Your task to perform on an android device: change notification settings in the gmail app Image 0: 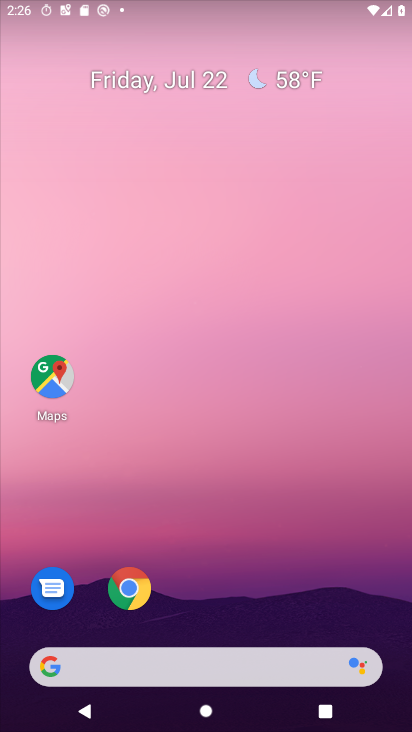
Step 0: press home button
Your task to perform on an android device: change notification settings in the gmail app Image 1: 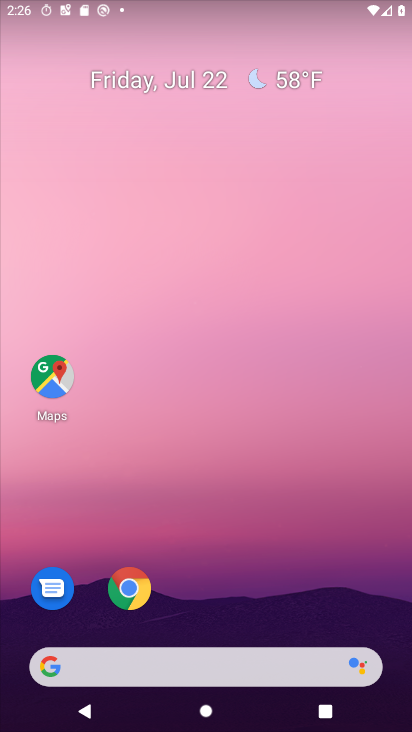
Step 1: drag from (278, 579) to (269, 64)
Your task to perform on an android device: change notification settings in the gmail app Image 2: 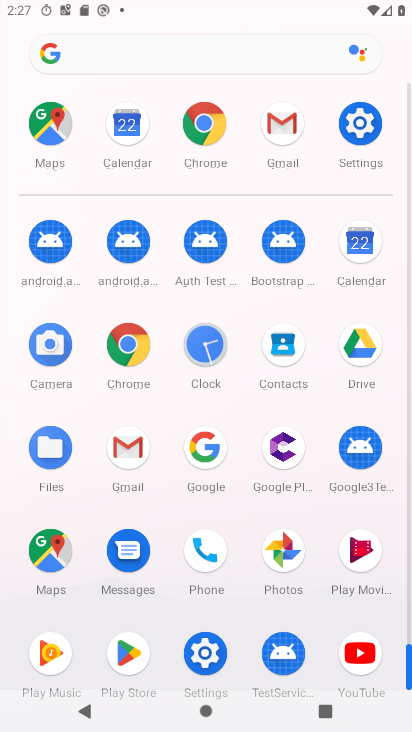
Step 2: click (138, 457)
Your task to perform on an android device: change notification settings in the gmail app Image 3: 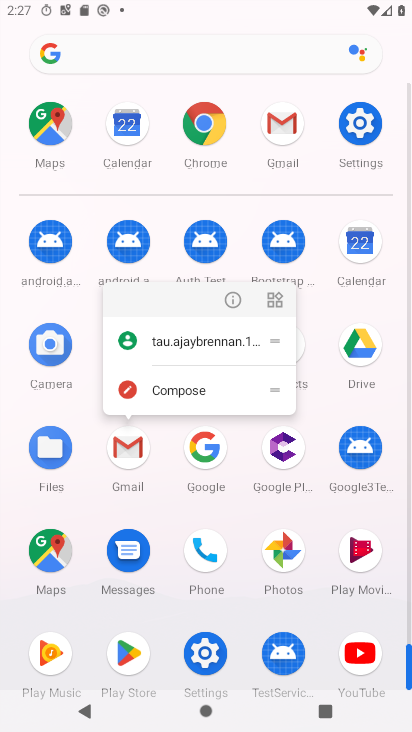
Step 3: click (233, 309)
Your task to perform on an android device: change notification settings in the gmail app Image 4: 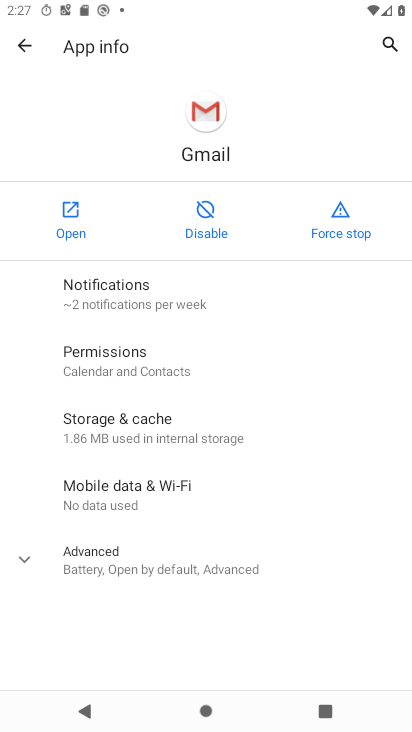
Step 4: click (139, 297)
Your task to perform on an android device: change notification settings in the gmail app Image 5: 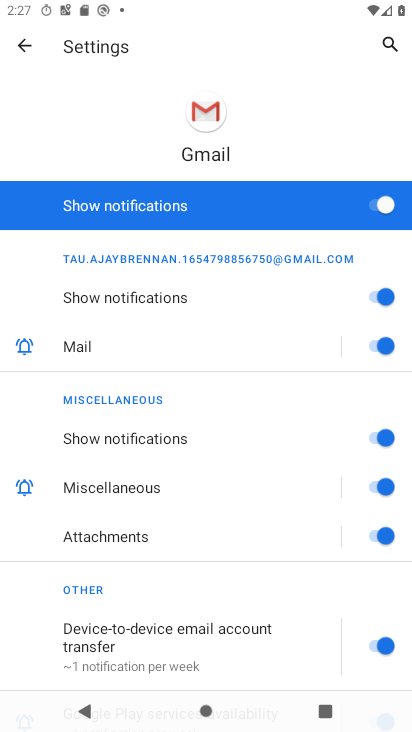
Step 5: click (255, 213)
Your task to perform on an android device: change notification settings in the gmail app Image 6: 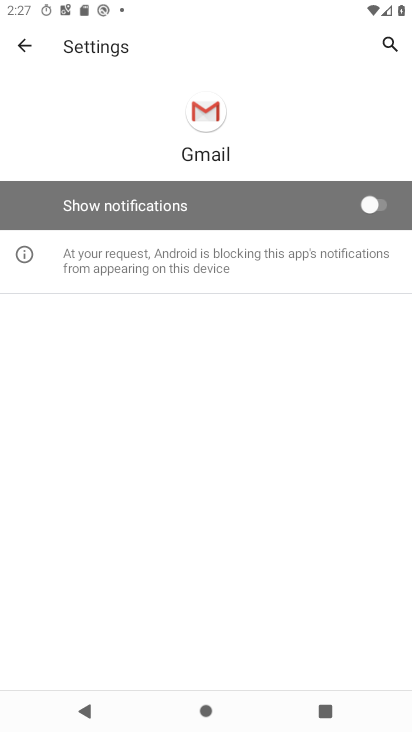
Step 6: task complete